Your task to perform on an android device: toggle location history Image 0: 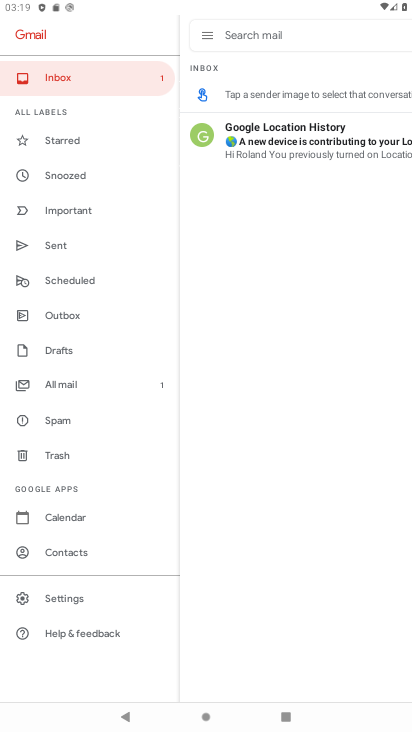
Step 0: press home button
Your task to perform on an android device: toggle location history Image 1: 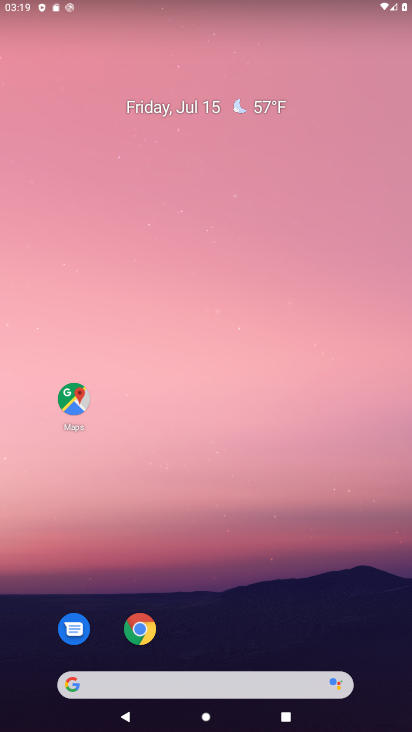
Step 1: drag from (383, 627) to (357, 126)
Your task to perform on an android device: toggle location history Image 2: 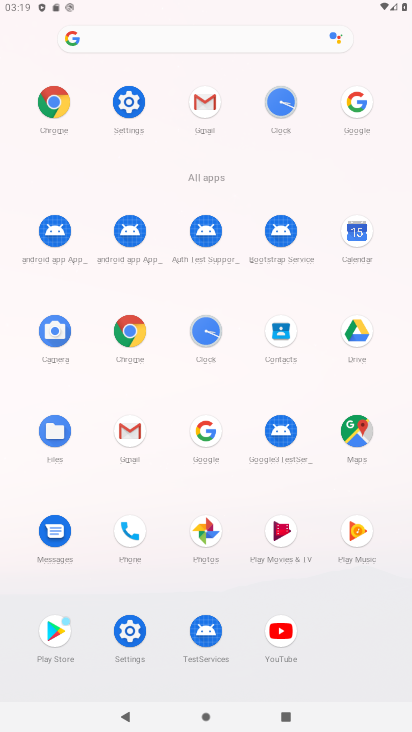
Step 2: click (135, 106)
Your task to perform on an android device: toggle location history Image 3: 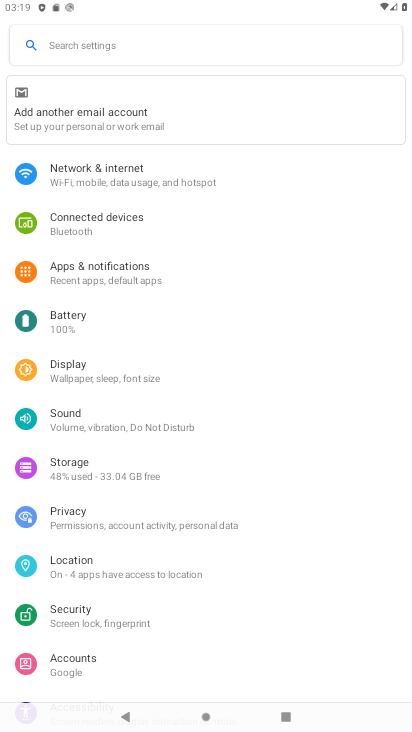
Step 3: click (58, 567)
Your task to perform on an android device: toggle location history Image 4: 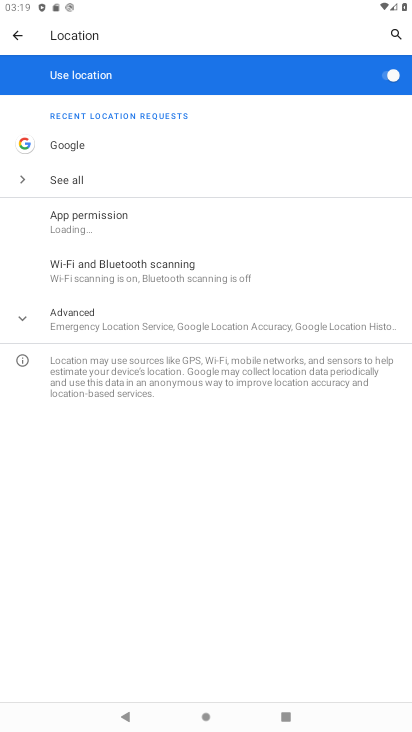
Step 4: click (20, 322)
Your task to perform on an android device: toggle location history Image 5: 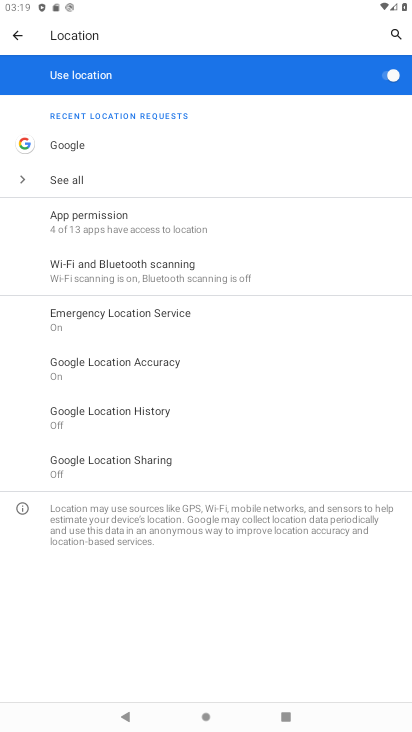
Step 5: click (97, 414)
Your task to perform on an android device: toggle location history Image 6: 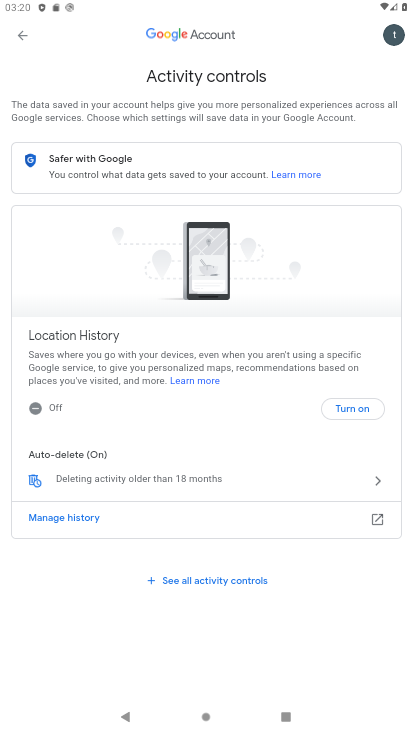
Step 6: click (362, 398)
Your task to perform on an android device: toggle location history Image 7: 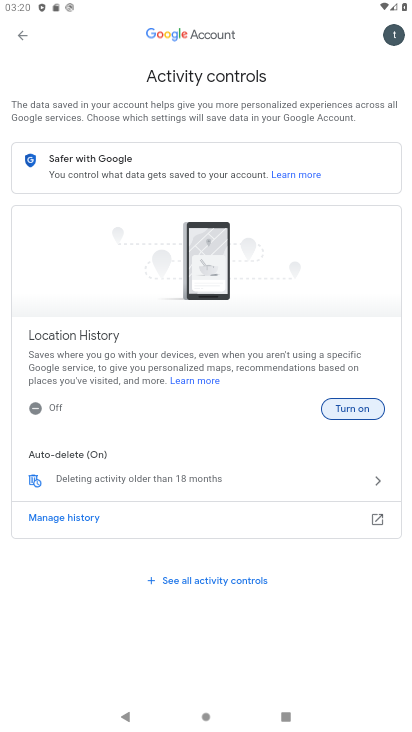
Step 7: click (362, 405)
Your task to perform on an android device: toggle location history Image 8: 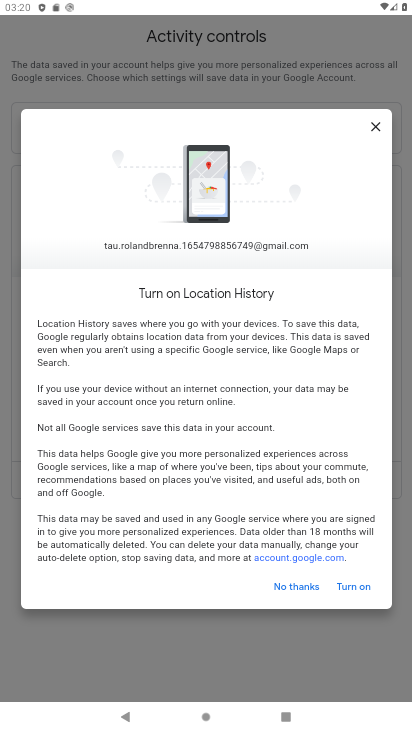
Step 8: click (351, 583)
Your task to perform on an android device: toggle location history Image 9: 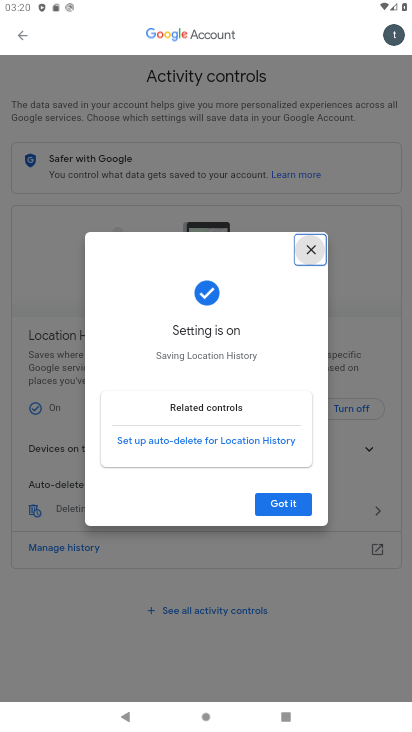
Step 9: click (295, 503)
Your task to perform on an android device: toggle location history Image 10: 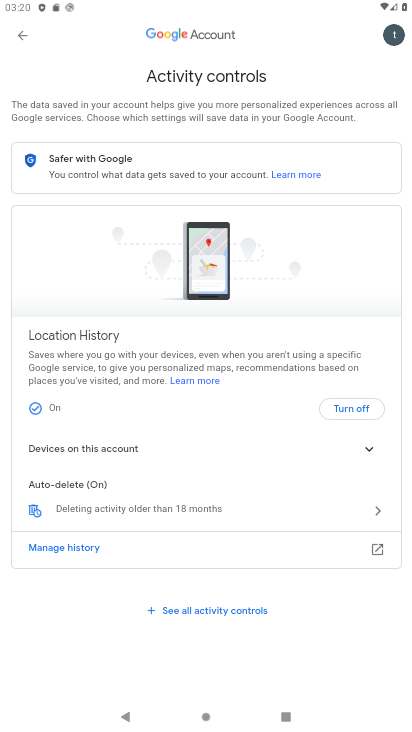
Step 10: task complete